Your task to perform on an android device: stop showing notifications on the lock screen Image 0: 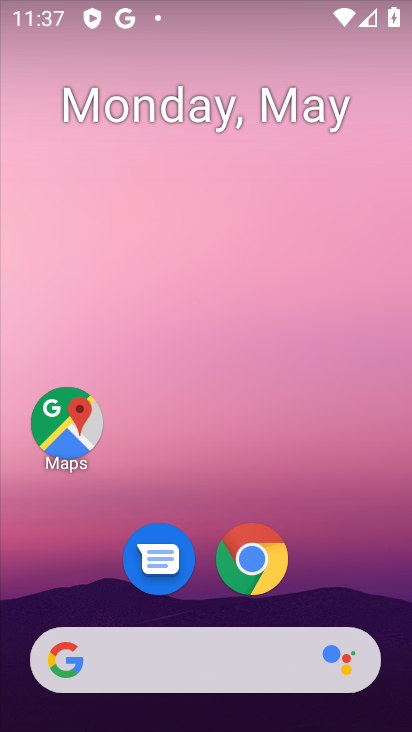
Step 0: drag from (353, 579) to (316, 27)
Your task to perform on an android device: stop showing notifications on the lock screen Image 1: 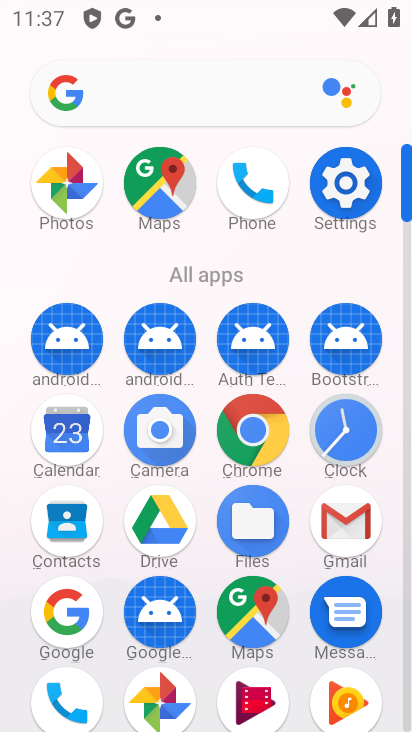
Step 1: click (365, 182)
Your task to perform on an android device: stop showing notifications on the lock screen Image 2: 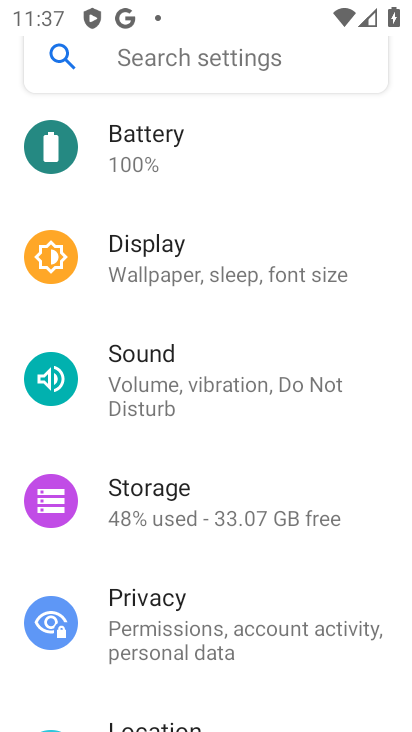
Step 2: drag from (230, 621) to (276, 297)
Your task to perform on an android device: stop showing notifications on the lock screen Image 3: 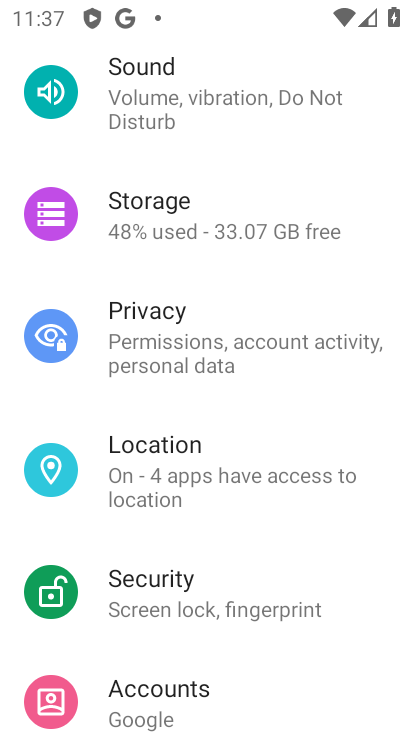
Step 3: drag from (276, 297) to (297, 717)
Your task to perform on an android device: stop showing notifications on the lock screen Image 4: 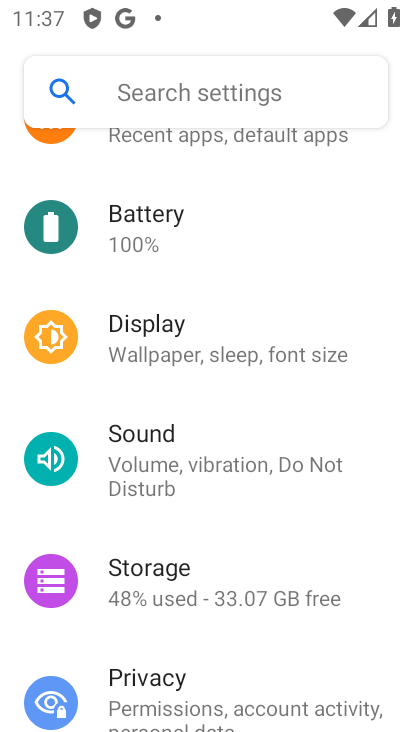
Step 4: drag from (247, 367) to (294, 684)
Your task to perform on an android device: stop showing notifications on the lock screen Image 5: 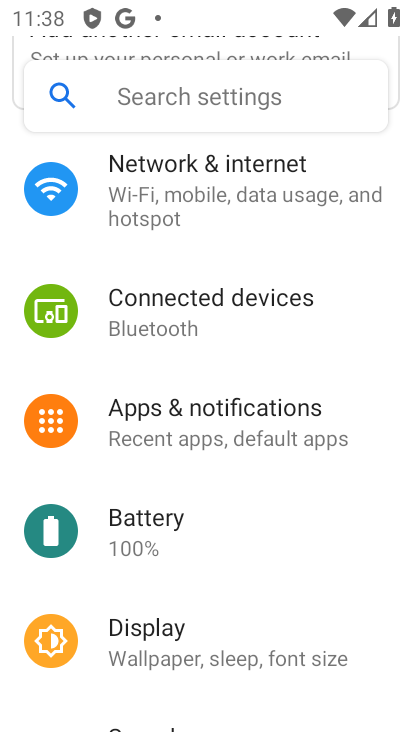
Step 5: click (235, 447)
Your task to perform on an android device: stop showing notifications on the lock screen Image 6: 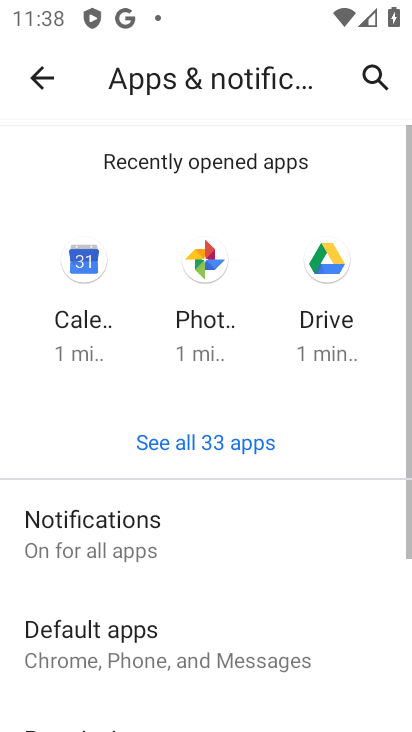
Step 6: drag from (258, 621) to (266, 209)
Your task to perform on an android device: stop showing notifications on the lock screen Image 7: 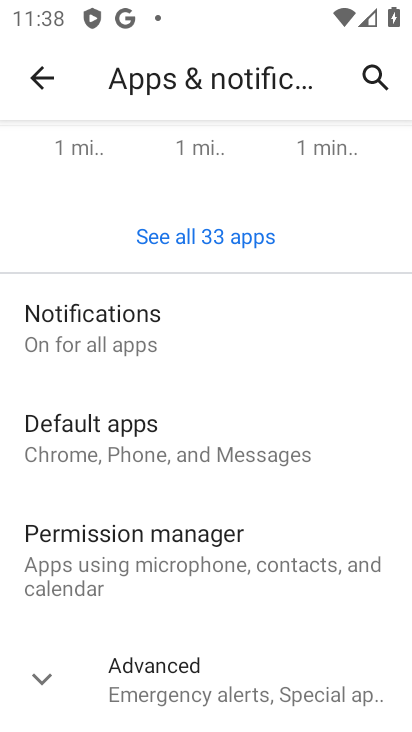
Step 7: drag from (198, 670) to (214, 480)
Your task to perform on an android device: stop showing notifications on the lock screen Image 8: 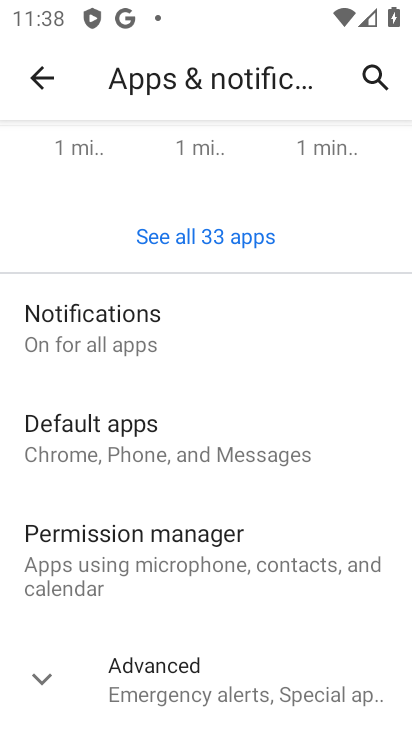
Step 8: click (214, 305)
Your task to perform on an android device: stop showing notifications on the lock screen Image 9: 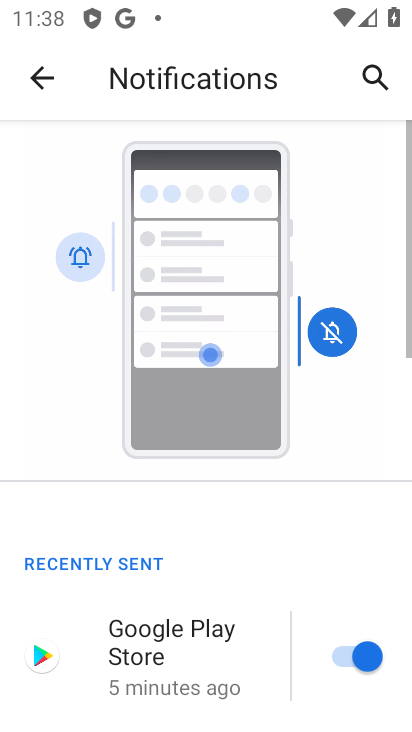
Step 9: drag from (231, 606) to (262, 22)
Your task to perform on an android device: stop showing notifications on the lock screen Image 10: 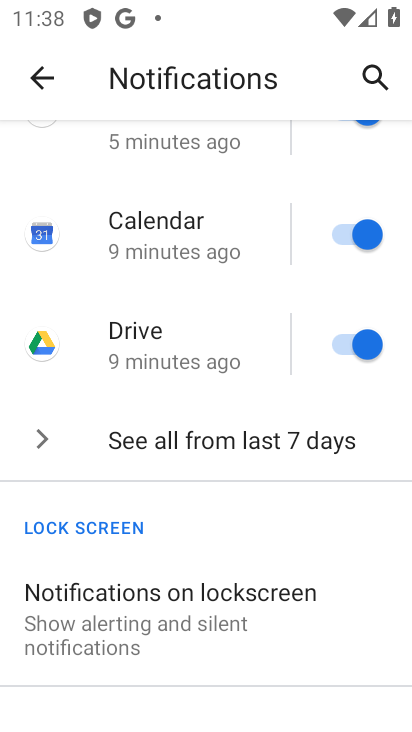
Step 10: drag from (254, 551) to (302, 128)
Your task to perform on an android device: stop showing notifications on the lock screen Image 11: 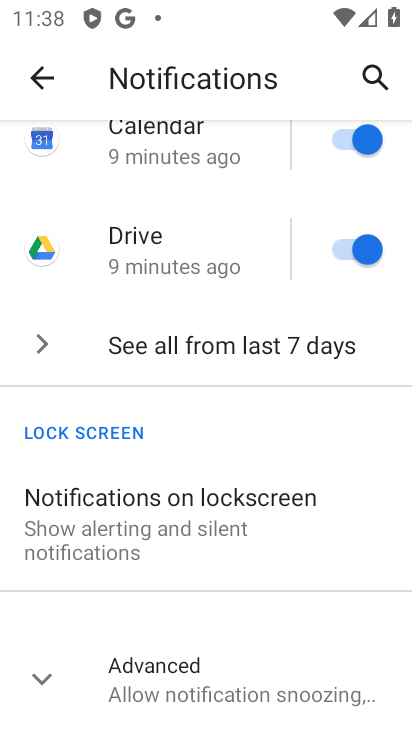
Step 11: click (195, 654)
Your task to perform on an android device: stop showing notifications on the lock screen Image 12: 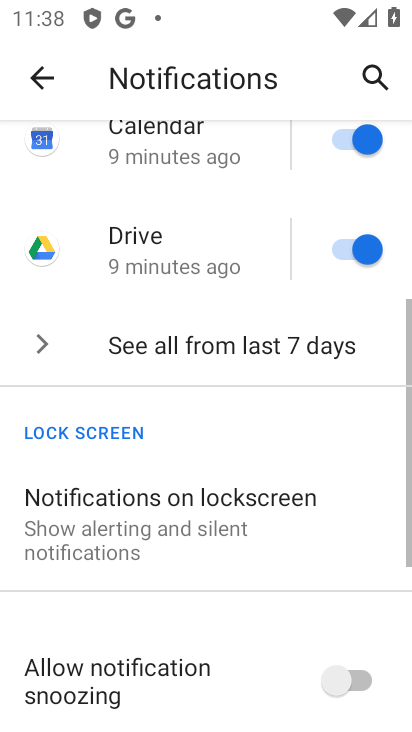
Step 12: drag from (267, 618) to (280, 174)
Your task to perform on an android device: stop showing notifications on the lock screen Image 13: 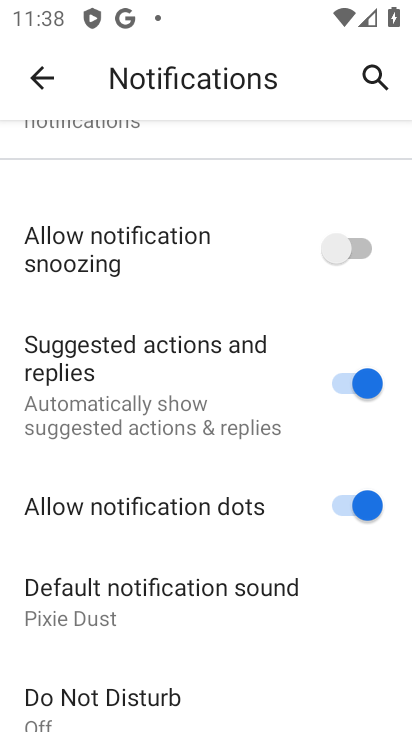
Step 13: drag from (188, 666) to (212, 362)
Your task to perform on an android device: stop showing notifications on the lock screen Image 14: 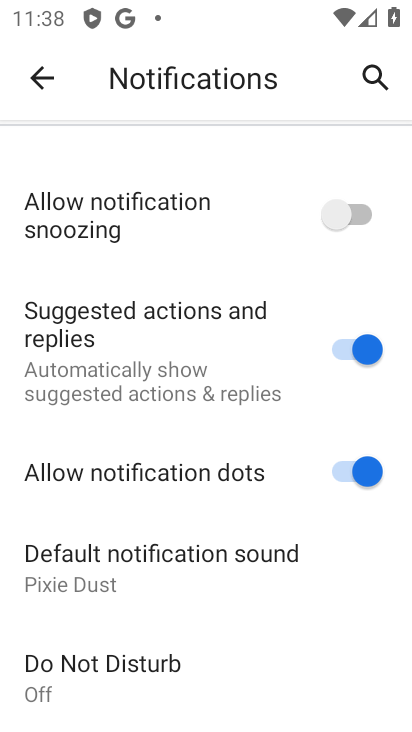
Step 14: click (32, 84)
Your task to perform on an android device: stop showing notifications on the lock screen Image 15: 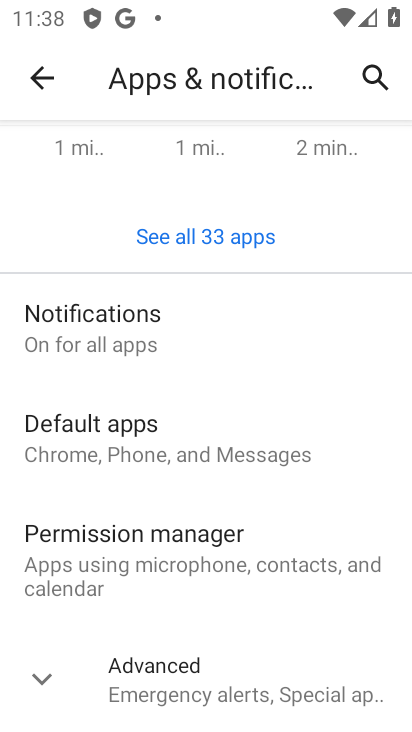
Step 15: click (171, 339)
Your task to perform on an android device: stop showing notifications on the lock screen Image 16: 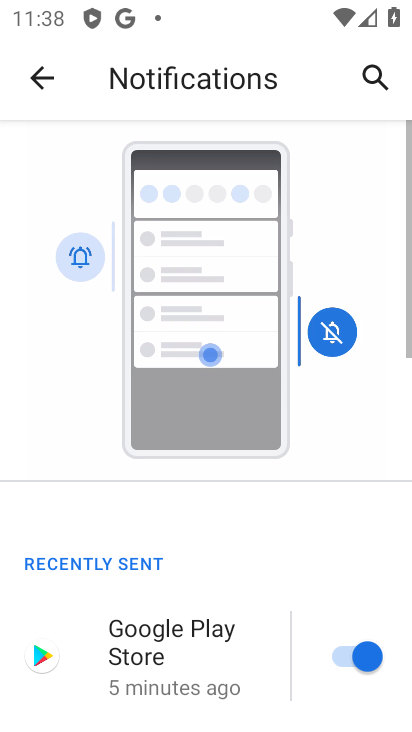
Step 16: drag from (238, 654) to (268, 54)
Your task to perform on an android device: stop showing notifications on the lock screen Image 17: 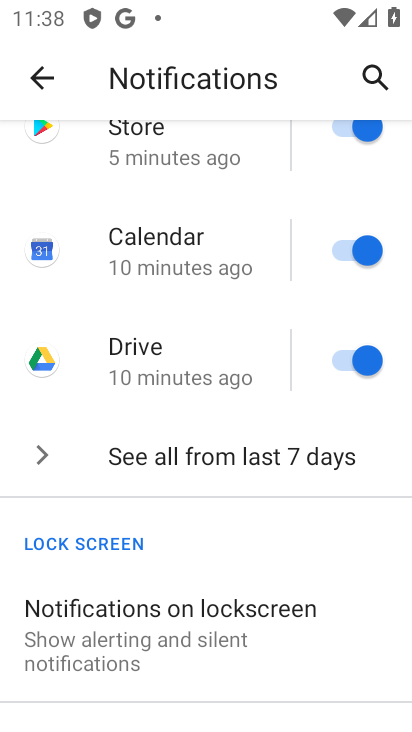
Step 17: click (135, 661)
Your task to perform on an android device: stop showing notifications on the lock screen Image 18: 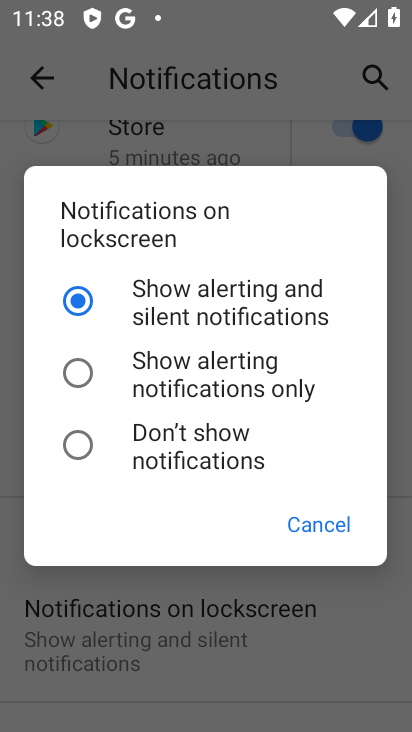
Step 18: click (175, 426)
Your task to perform on an android device: stop showing notifications on the lock screen Image 19: 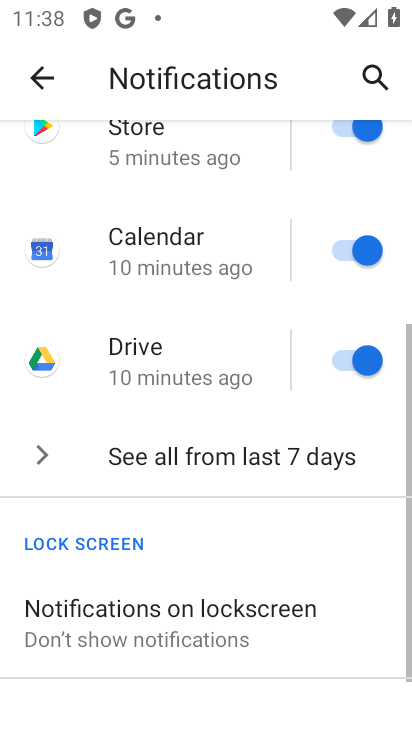
Step 19: task complete